Your task to perform on an android device: change the clock display to analog Image 0: 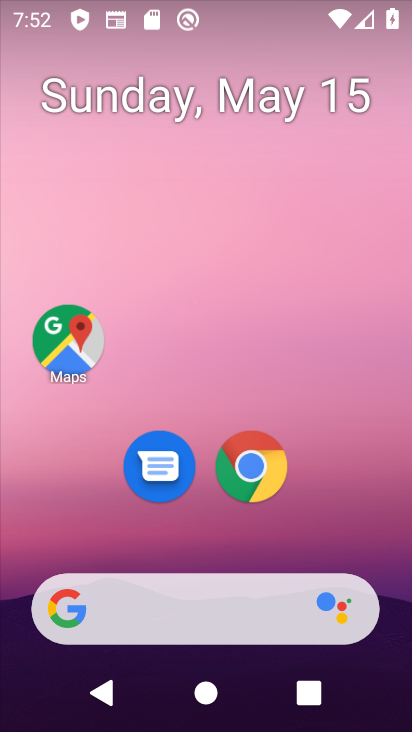
Step 0: drag from (211, 537) to (164, 0)
Your task to perform on an android device: change the clock display to analog Image 1: 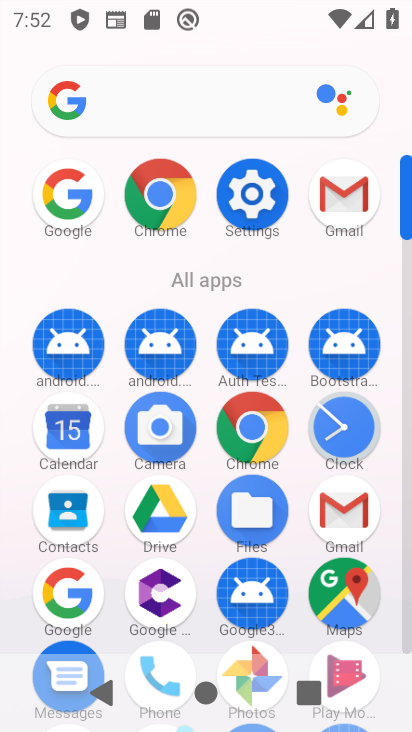
Step 1: click (348, 442)
Your task to perform on an android device: change the clock display to analog Image 2: 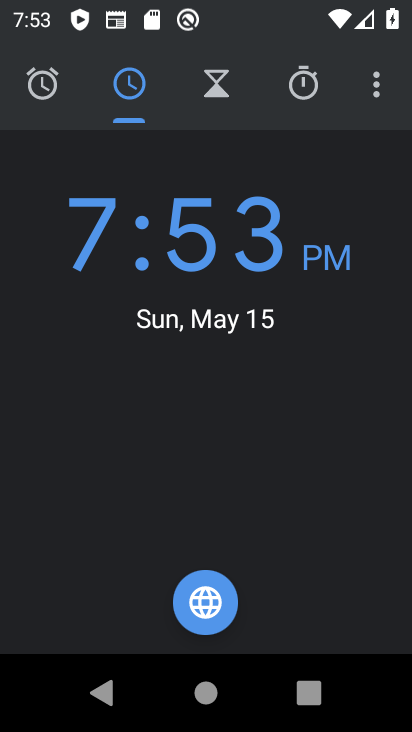
Step 2: click (382, 101)
Your task to perform on an android device: change the clock display to analog Image 3: 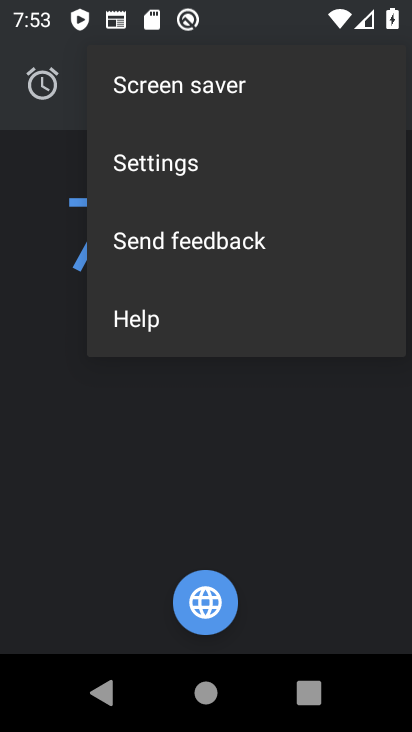
Step 3: click (166, 174)
Your task to perform on an android device: change the clock display to analog Image 4: 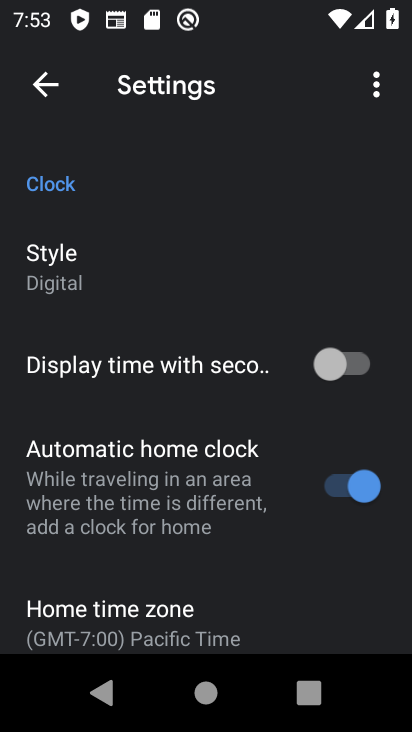
Step 4: click (90, 269)
Your task to perform on an android device: change the clock display to analog Image 5: 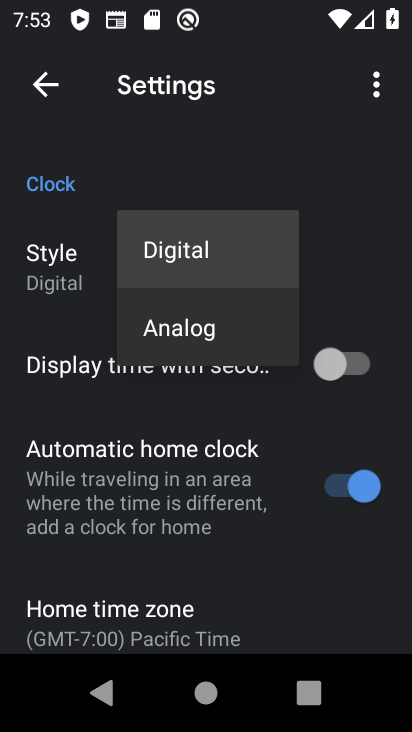
Step 5: click (180, 316)
Your task to perform on an android device: change the clock display to analog Image 6: 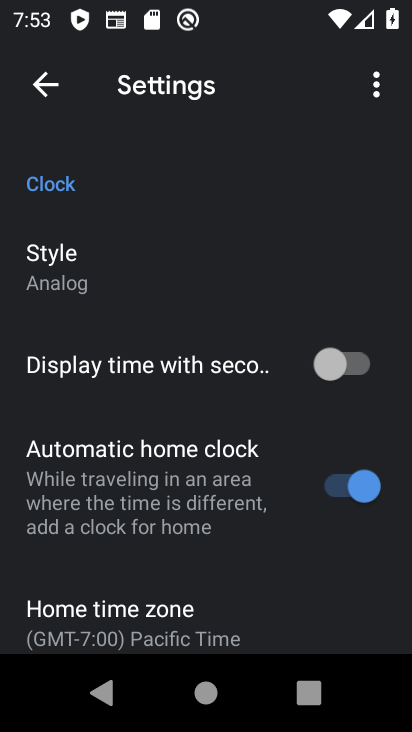
Step 6: task complete